Your task to perform on an android device: Go to ESPN.com Image 0: 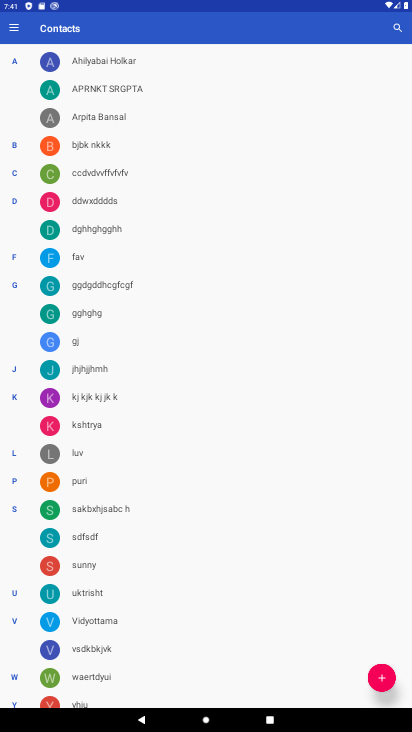
Step 0: press home button
Your task to perform on an android device: Go to ESPN.com Image 1: 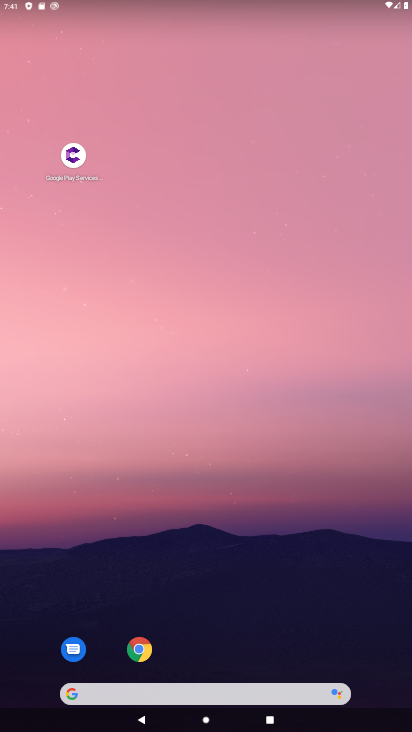
Step 1: click (138, 651)
Your task to perform on an android device: Go to ESPN.com Image 2: 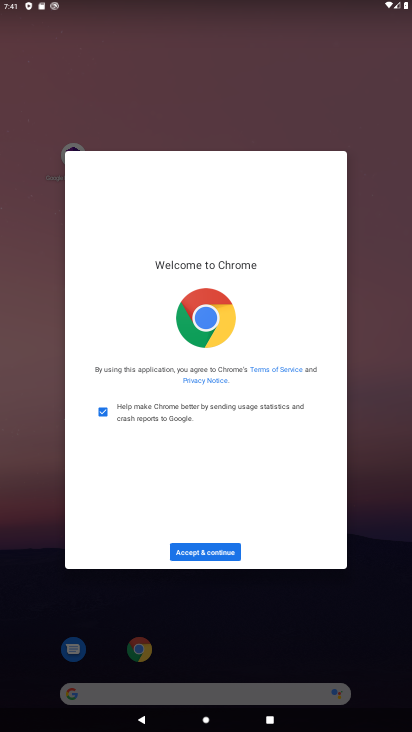
Step 2: click (205, 551)
Your task to perform on an android device: Go to ESPN.com Image 3: 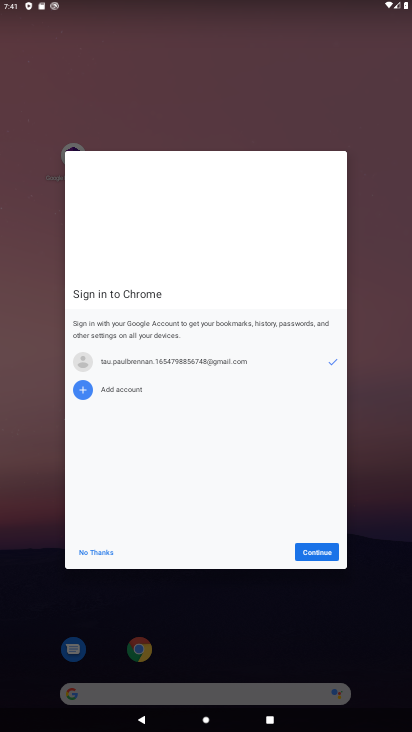
Step 3: click (317, 551)
Your task to perform on an android device: Go to ESPN.com Image 4: 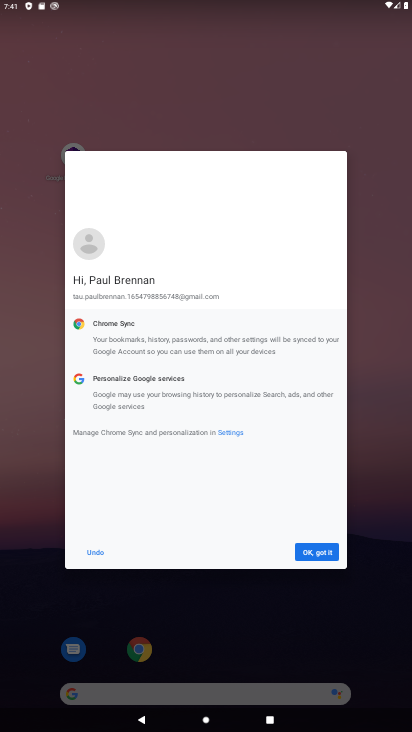
Step 4: click (317, 551)
Your task to perform on an android device: Go to ESPN.com Image 5: 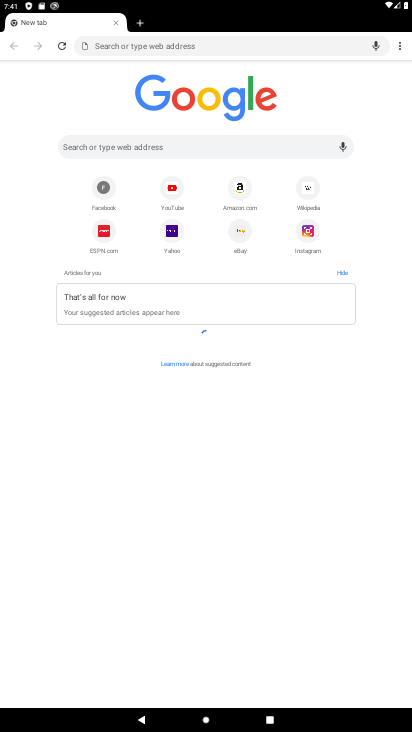
Step 5: click (107, 149)
Your task to perform on an android device: Go to ESPN.com Image 6: 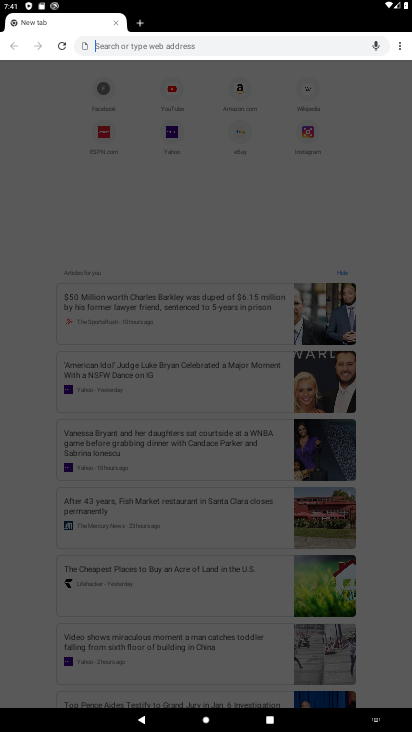
Step 6: type "ESPN.com"
Your task to perform on an android device: Go to ESPN.com Image 7: 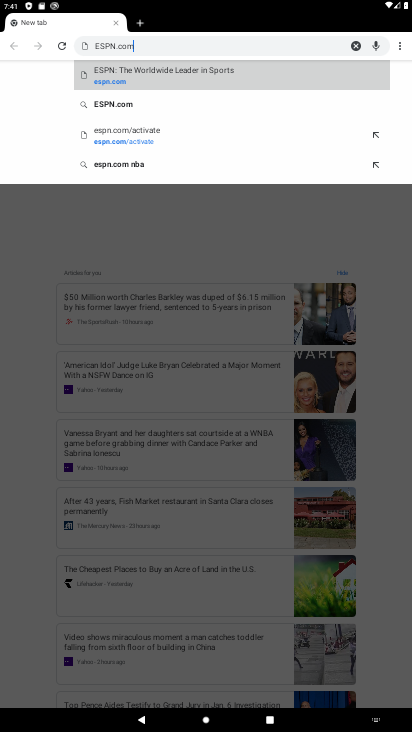
Step 7: click (122, 74)
Your task to perform on an android device: Go to ESPN.com Image 8: 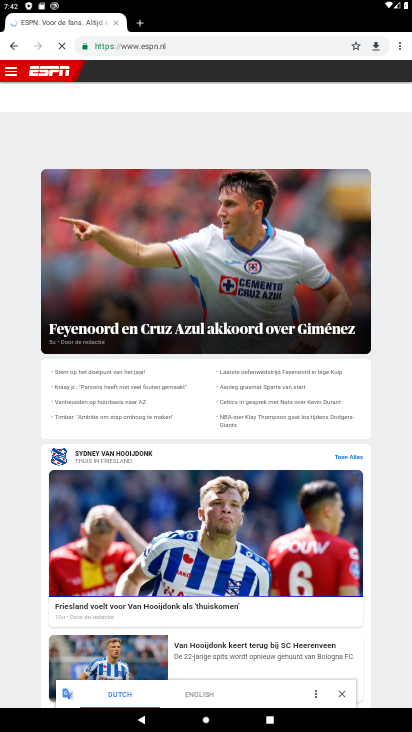
Step 8: drag from (288, 443) to (296, 117)
Your task to perform on an android device: Go to ESPN.com Image 9: 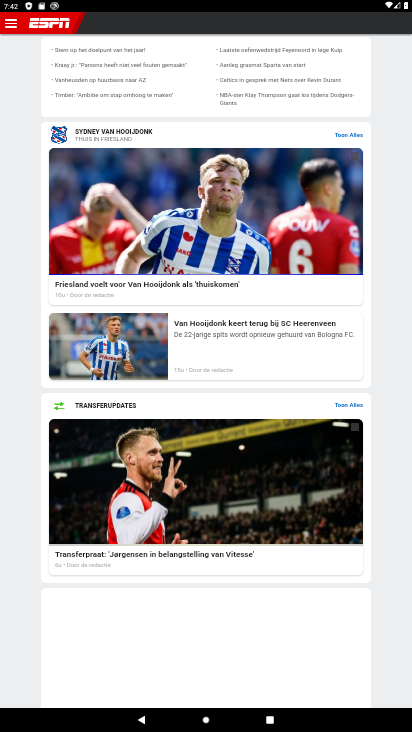
Step 9: drag from (269, 390) to (276, 115)
Your task to perform on an android device: Go to ESPN.com Image 10: 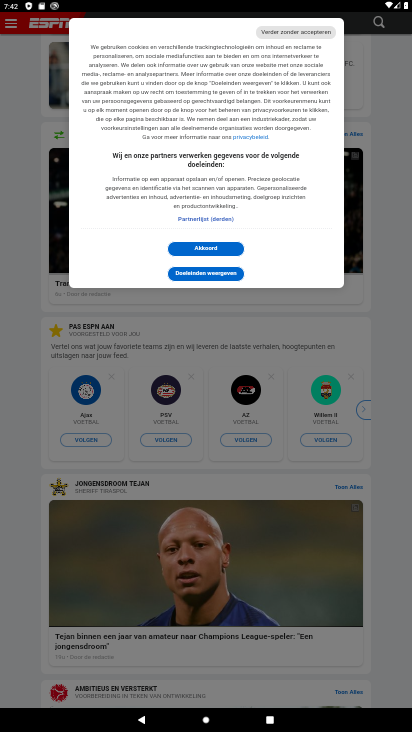
Step 10: click (204, 246)
Your task to perform on an android device: Go to ESPN.com Image 11: 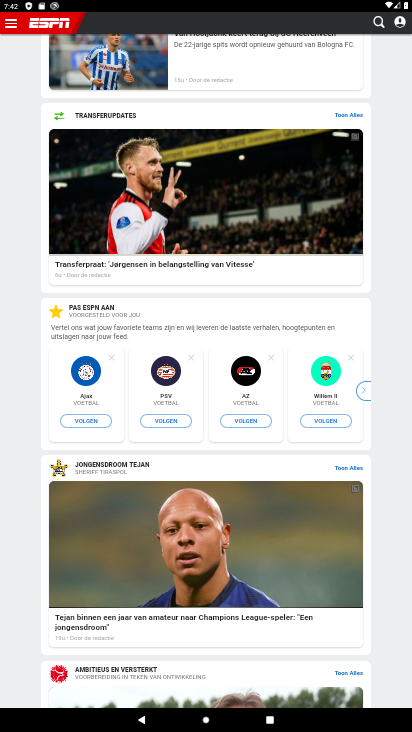
Step 11: task complete